Your task to perform on an android device: Search for Italian restaurants on Maps Image 0: 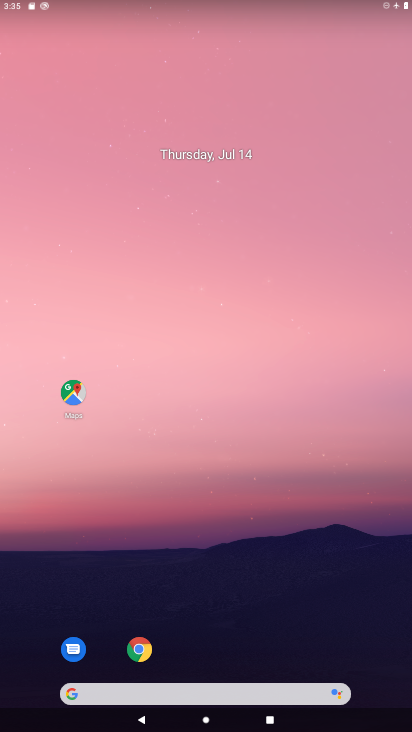
Step 0: drag from (252, 615) to (265, 267)
Your task to perform on an android device: Search for Italian restaurants on Maps Image 1: 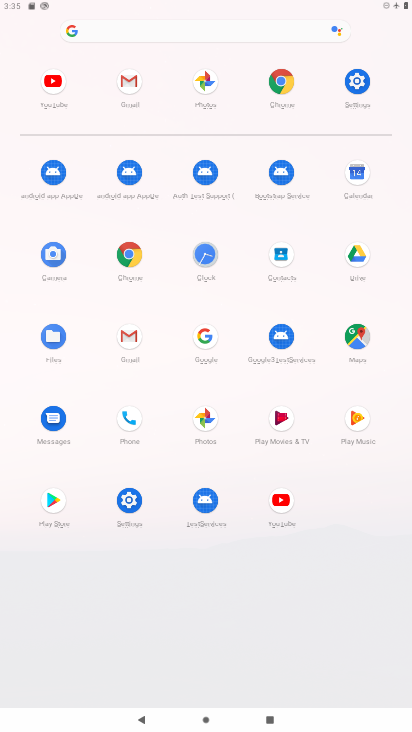
Step 1: click (359, 331)
Your task to perform on an android device: Search for Italian restaurants on Maps Image 2: 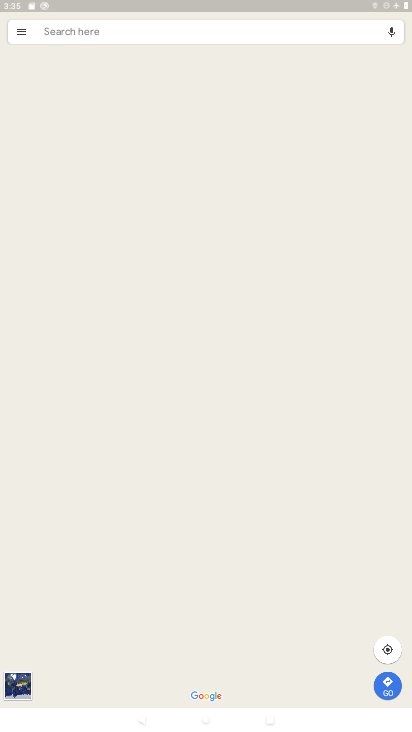
Step 2: click (166, 33)
Your task to perform on an android device: Search for Italian restaurants on Maps Image 3: 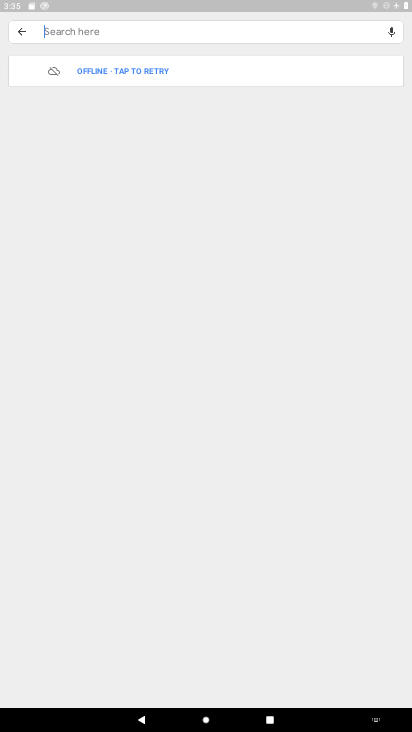
Step 3: type " Italian restaurant "
Your task to perform on an android device: Search for Italian restaurants on Maps Image 4: 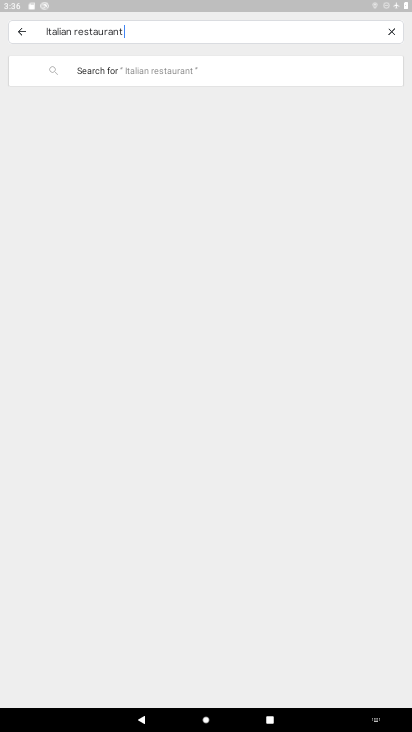
Step 4: task complete